Your task to perform on an android device: check data usage Image 0: 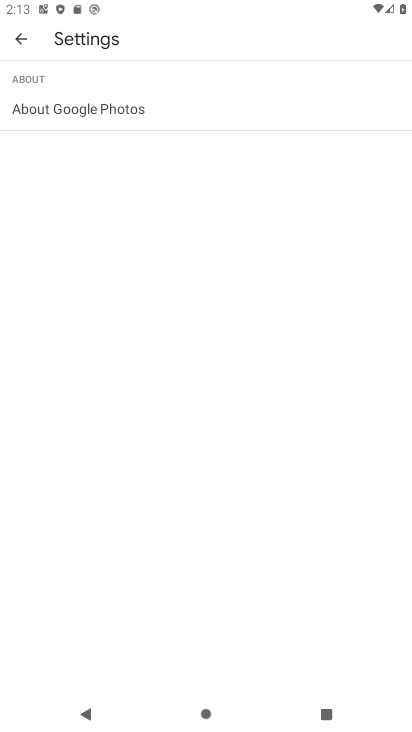
Step 0: press home button
Your task to perform on an android device: check data usage Image 1: 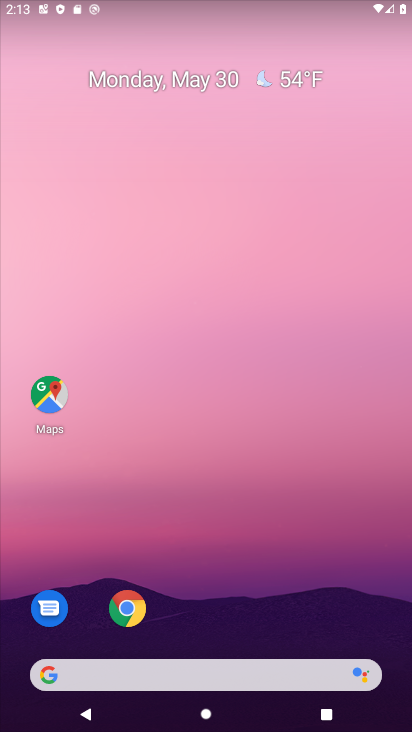
Step 1: click (139, 616)
Your task to perform on an android device: check data usage Image 2: 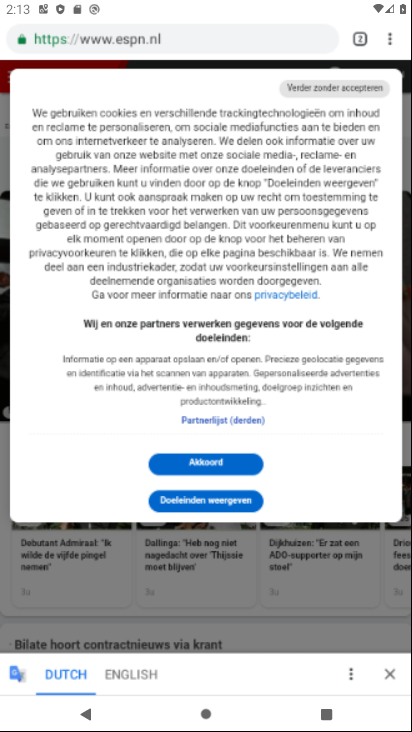
Step 2: press home button
Your task to perform on an android device: check data usage Image 3: 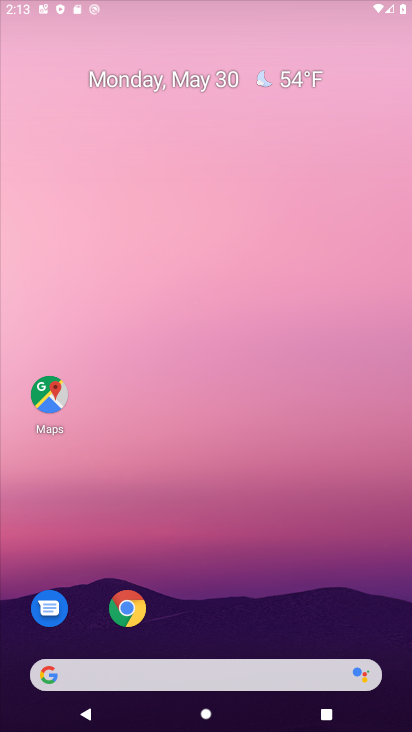
Step 3: drag from (244, 248) to (125, 0)
Your task to perform on an android device: check data usage Image 4: 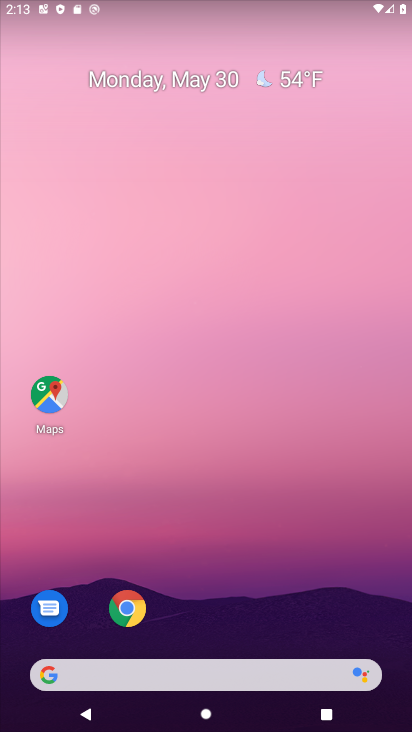
Step 4: drag from (240, 553) to (167, 5)
Your task to perform on an android device: check data usage Image 5: 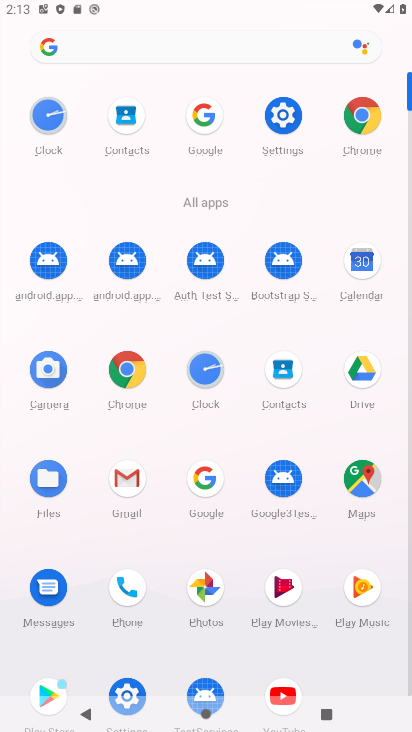
Step 5: click (273, 101)
Your task to perform on an android device: check data usage Image 6: 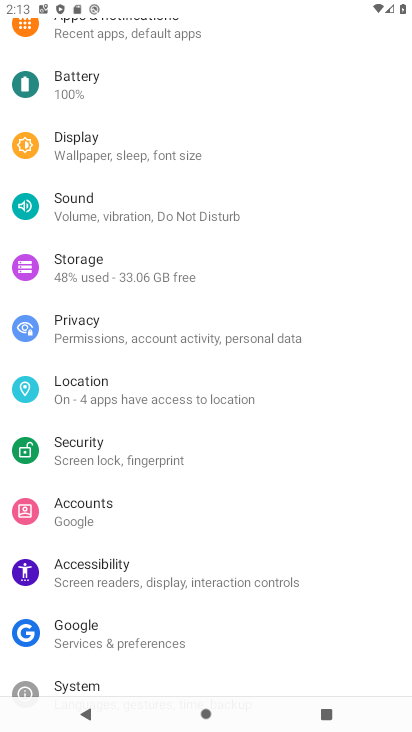
Step 6: drag from (242, 56) to (207, 623)
Your task to perform on an android device: check data usage Image 7: 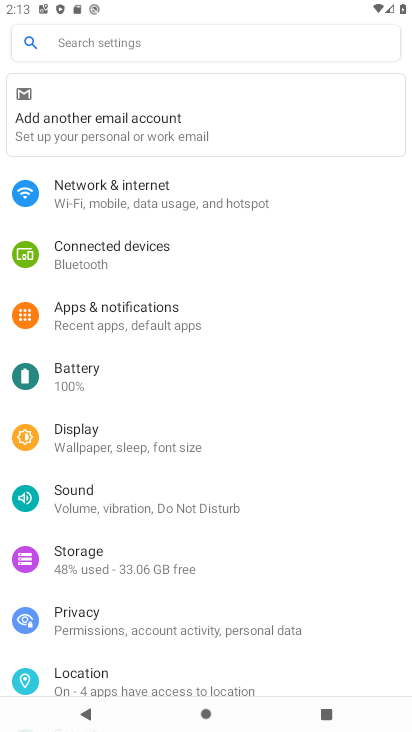
Step 7: click (192, 201)
Your task to perform on an android device: check data usage Image 8: 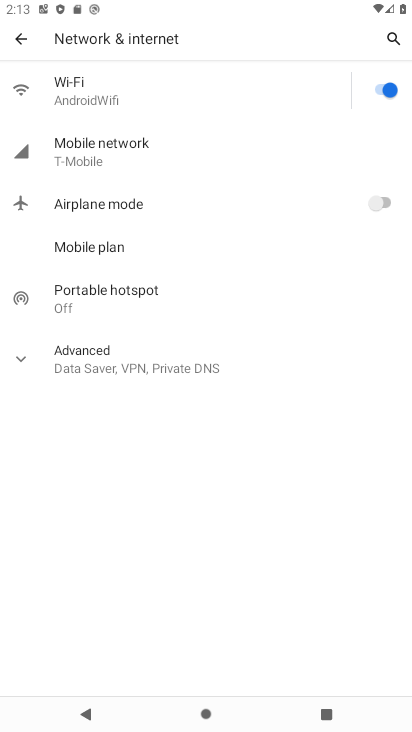
Step 8: click (183, 139)
Your task to perform on an android device: check data usage Image 9: 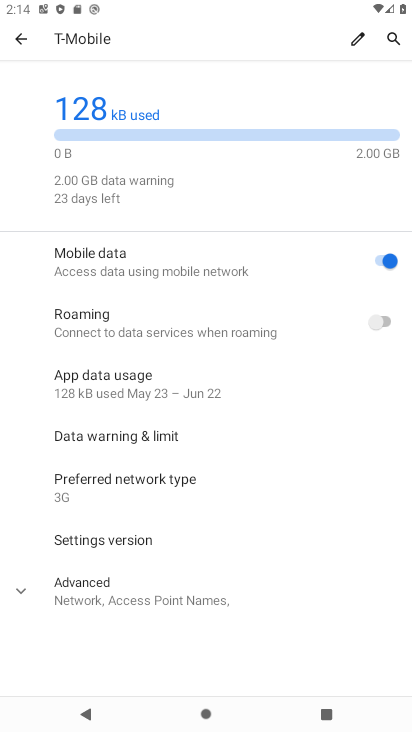
Step 9: task complete